Your task to perform on an android device: open a new tab in the chrome app Image 0: 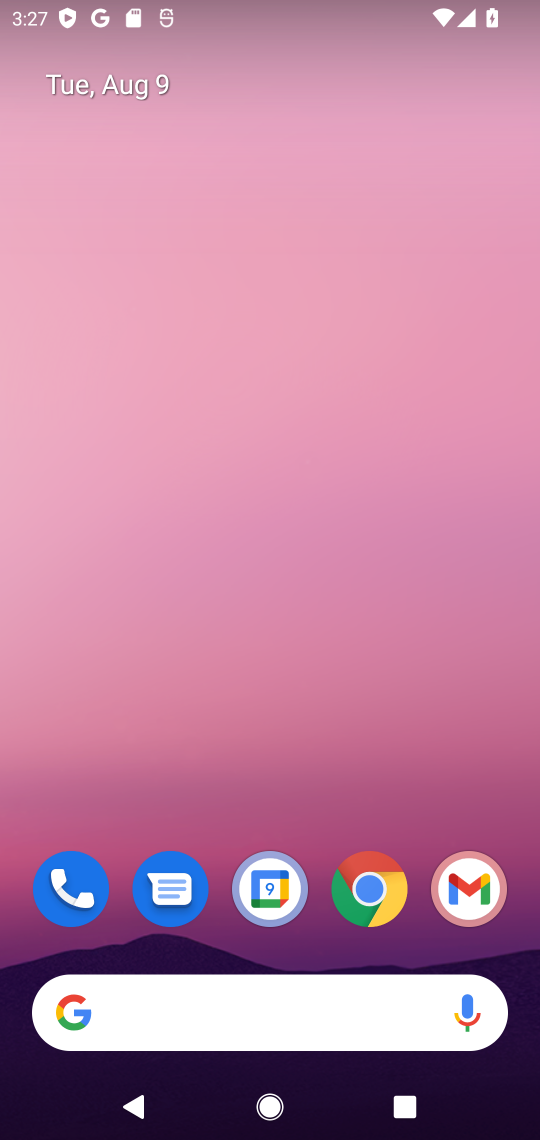
Step 0: click (361, 888)
Your task to perform on an android device: open a new tab in the chrome app Image 1: 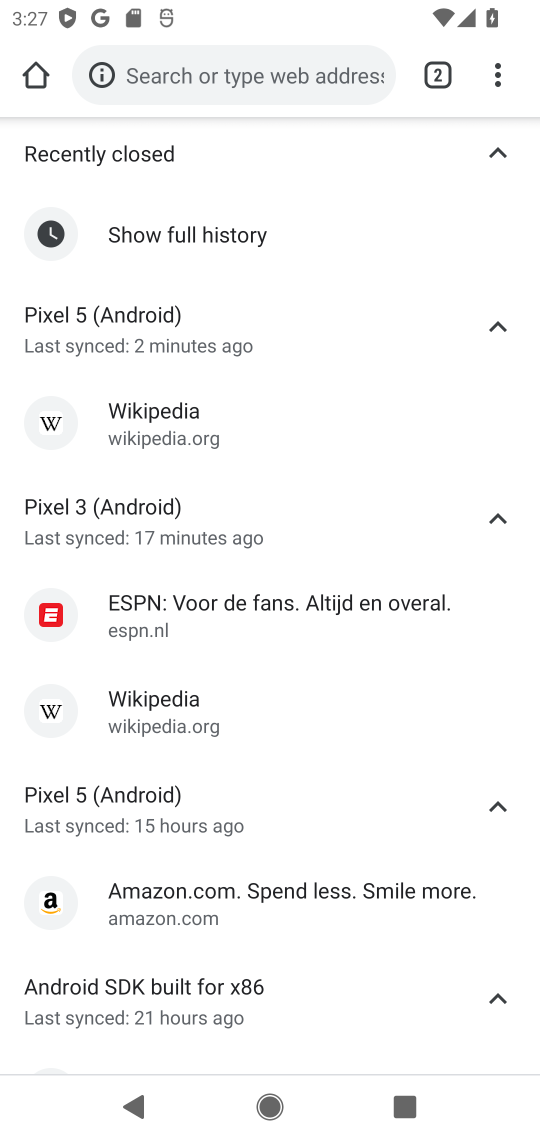
Step 1: click (496, 71)
Your task to perform on an android device: open a new tab in the chrome app Image 2: 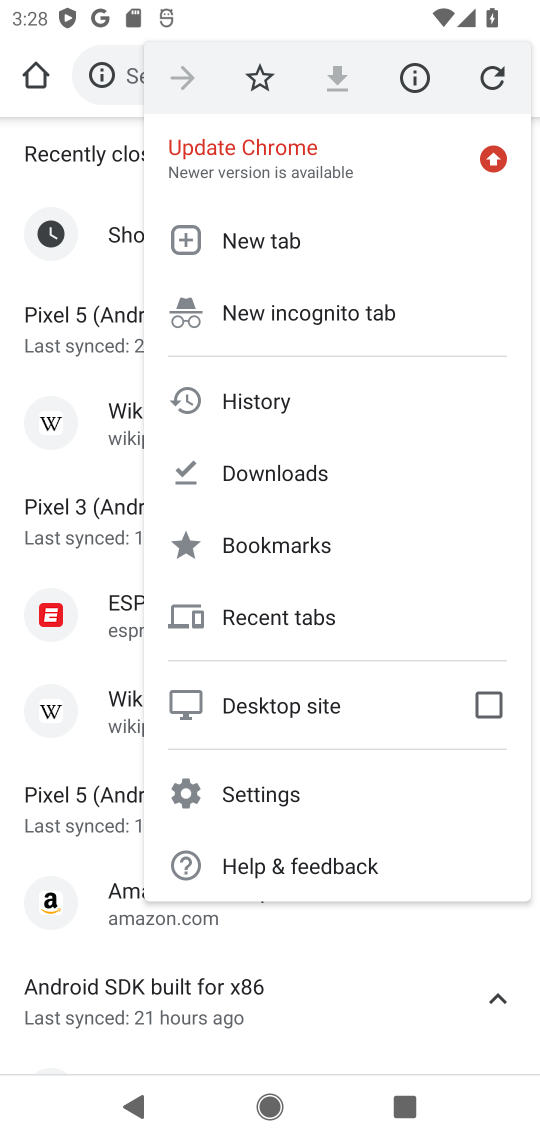
Step 2: click (290, 240)
Your task to perform on an android device: open a new tab in the chrome app Image 3: 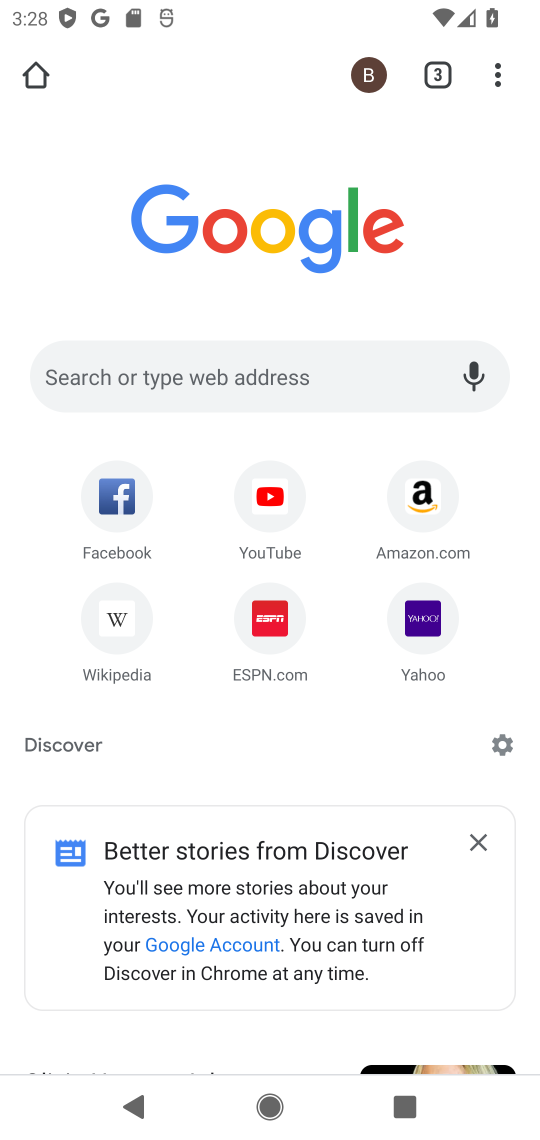
Step 3: task complete